Your task to perform on an android device: delete location history Image 0: 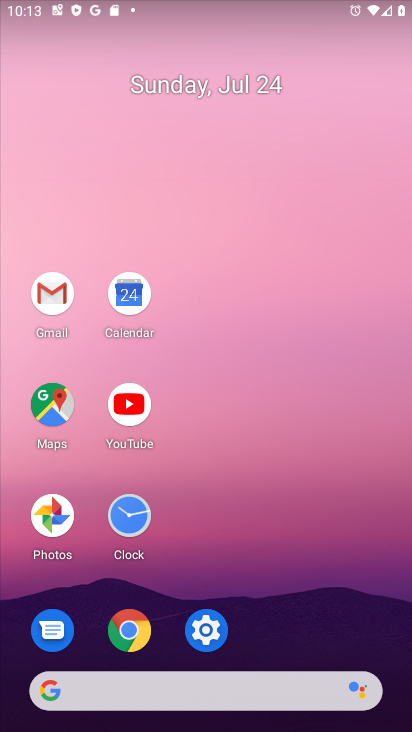
Step 0: click (46, 408)
Your task to perform on an android device: delete location history Image 1: 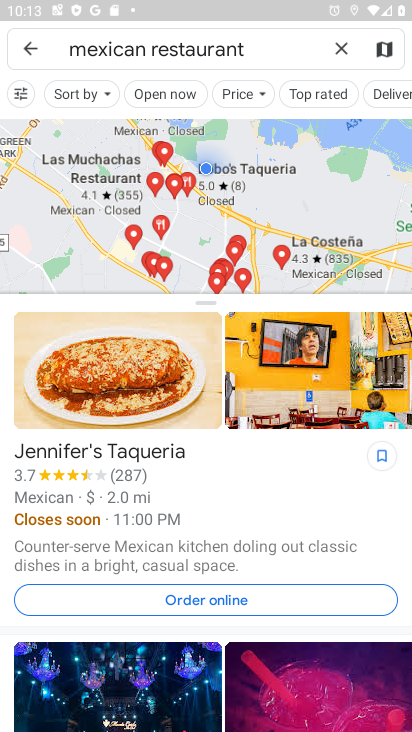
Step 1: click (27, 39)
Your task to perform on an android device: delete location history Image 2: 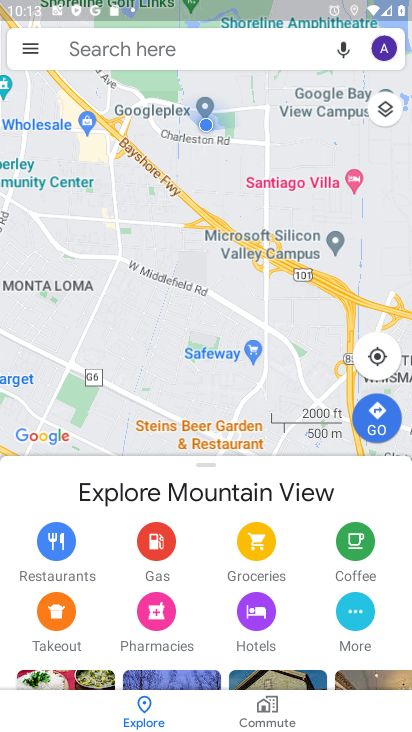
Step 2: click (24, 44)
Your task to perform on an android device: delete location history Image 3: 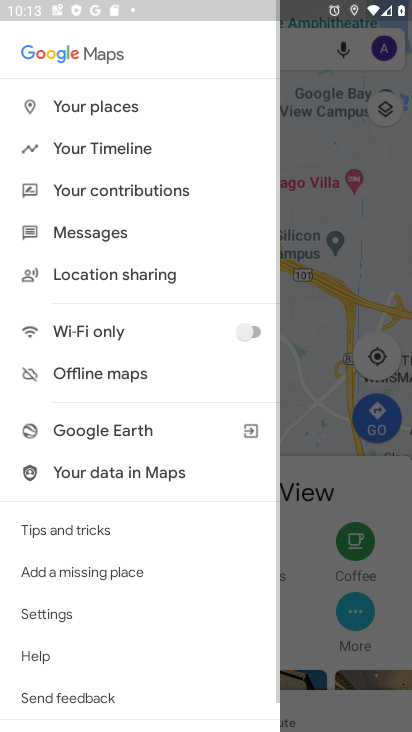
Step 3: click (104, 144)
Your task to perform on an android device: delete location history Image 4: 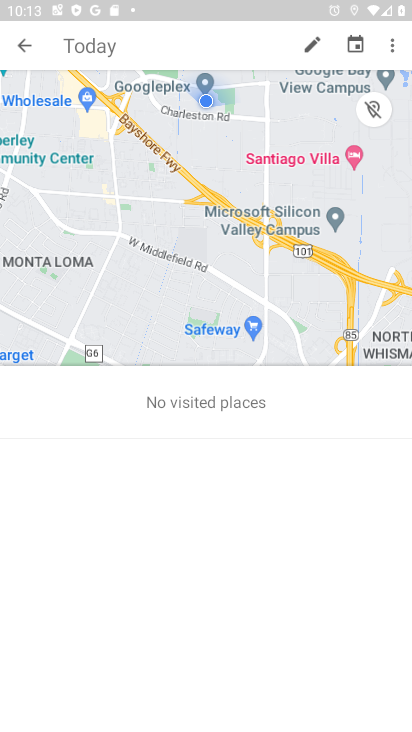
Step 4: click (392, 48)
Your task to perform on an android device: delete location history Image 5: 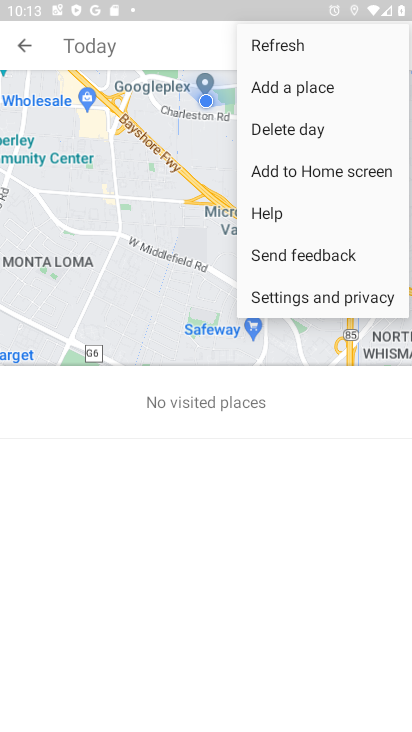
Step 5: click (319, 294)
Your task to perform on an android device: delete location history Image 6: 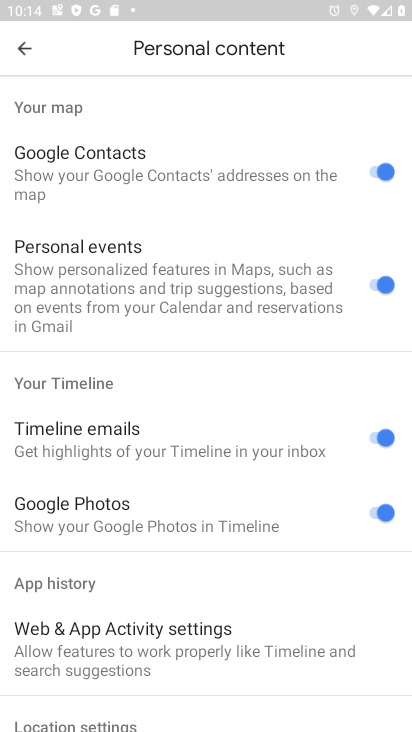
Step 6: drag from (283, 606) to (251, 340)
Your task to perform on an android device: delete location history Image 7: 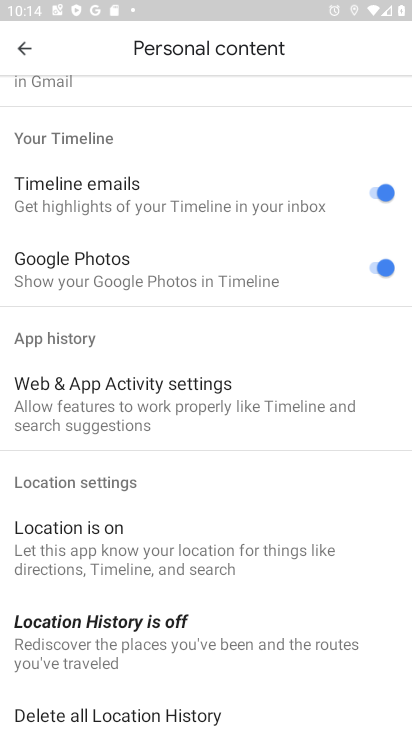
Step 7: click (119, 712)
Your task to perform on an android device: delete location history Image 8: 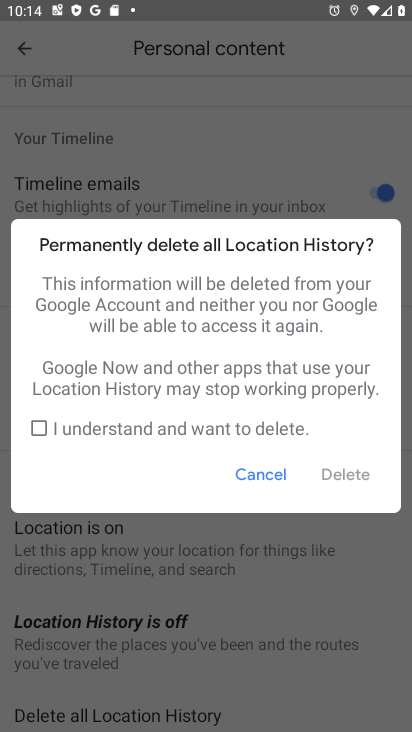
Step 8: click (39, 429)
Your task to perform on an android device: delete location history Image 9: 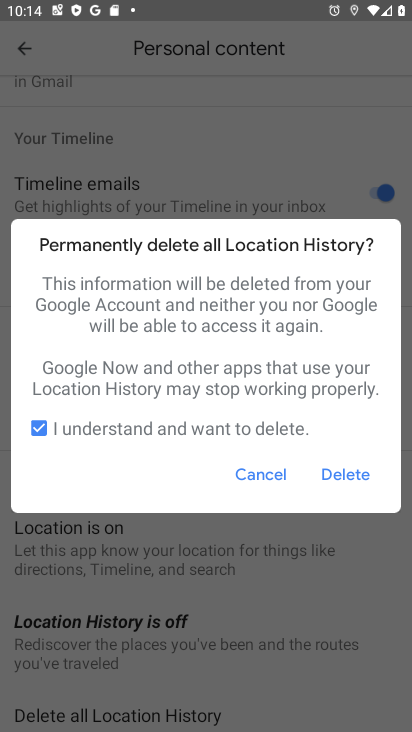
Step 9: click (336, 472)
Your task to perform on an android device: delete location history Image 10: 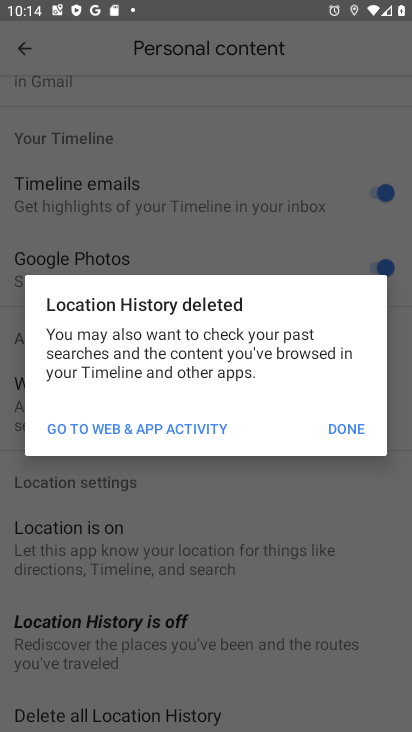
Step 10: click (341, 430)
Your task to perform on an android device: delete location history Image 11: 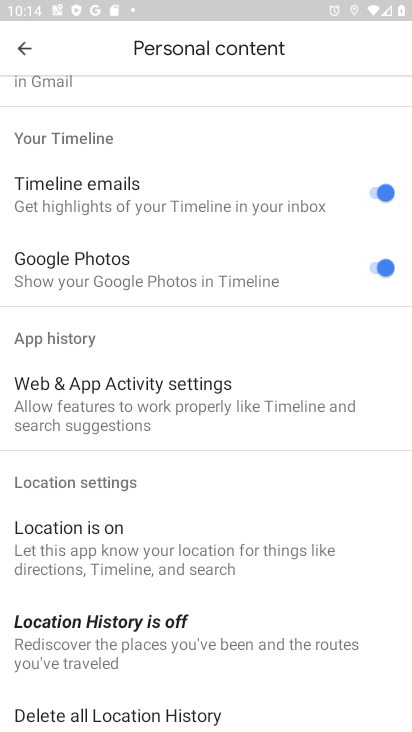
Step 11: task complete